Your task to perform on an android device: Check the weather Image 0: 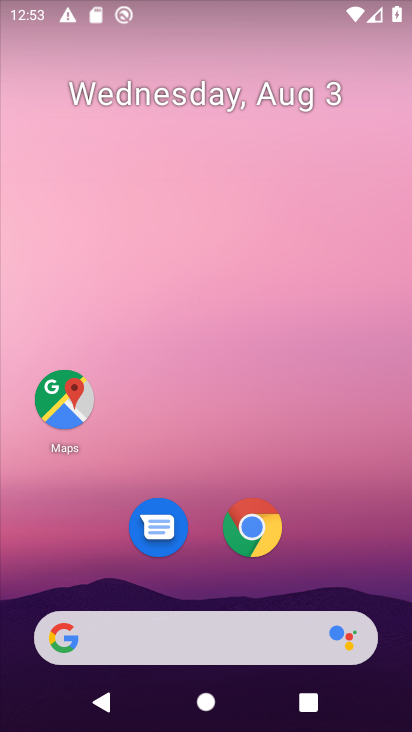
Step 0: click (111, 635)
Your task to perform on an android device: Check the weather Image 1: 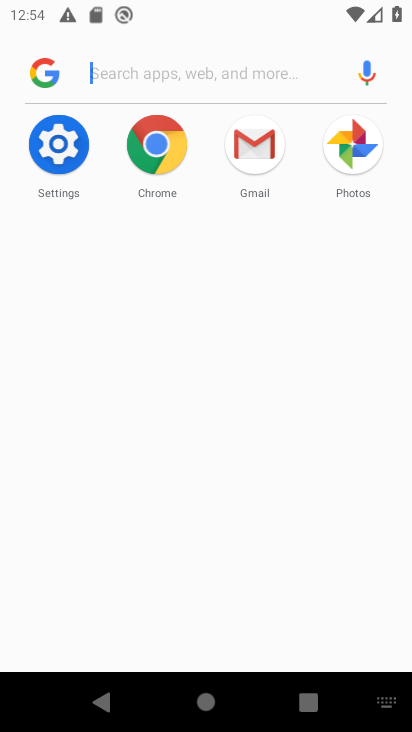
Step 1: type "weather"
Your task to perform on an android device: Check the weather Image 2: 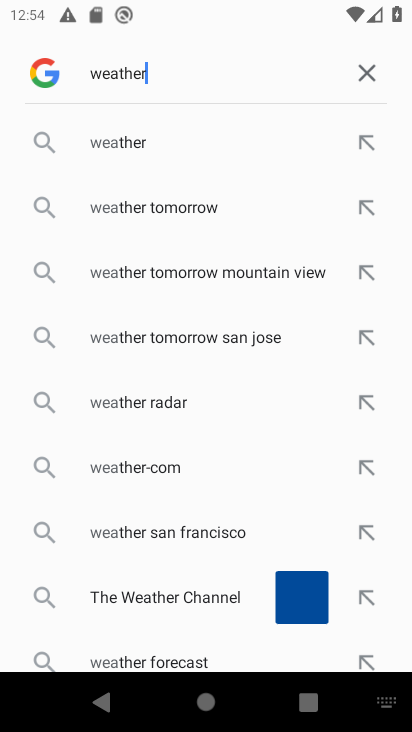
Step 2: type ""
Your task to perform on an android device: Check the weather Image 3: 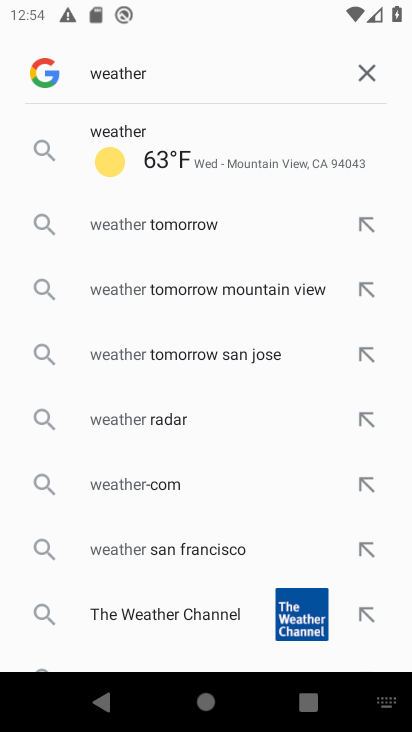
Step 3: task complete